Your task to perform on an android device: turn smart compose on in the gmail app Image 0: 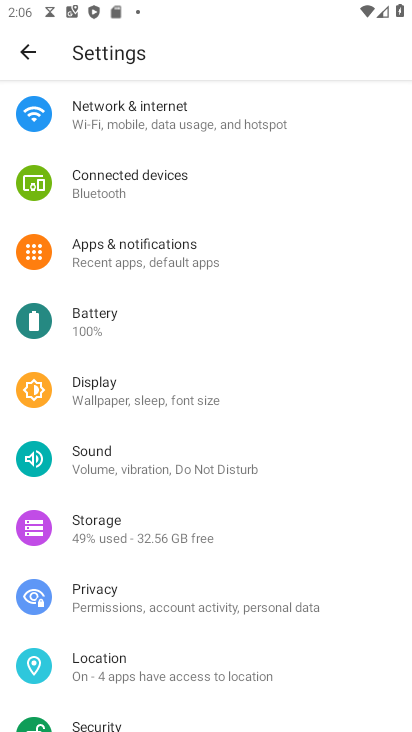
Step 0: press home button
Your task to perform on an android device: turn smart compose on in the gmail app Image 1: 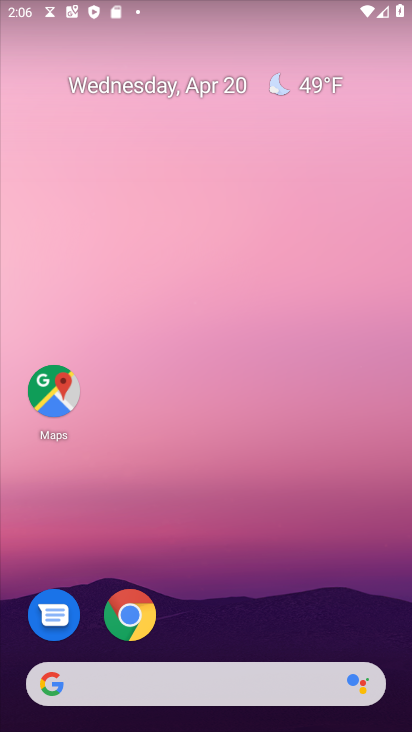
Step 1: drag from (257, 568) to (277, 169)
Your task to perform on an android device: turn smart compose on in the gmail app Image 2: 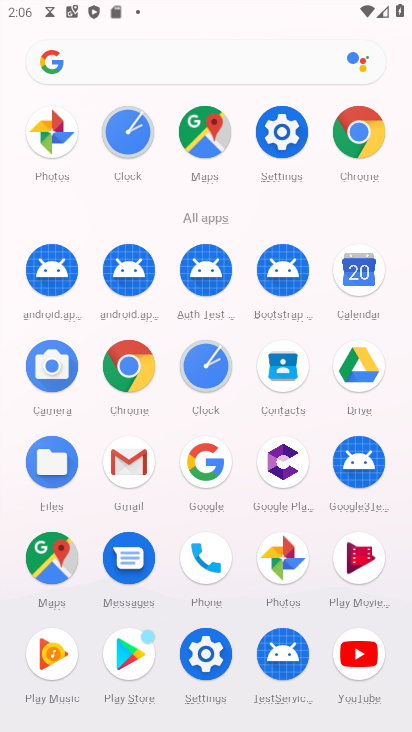
Step 2: click (133, 466)
Your task to perform on an android device: turn smart compose on in the gmail app Image 3: 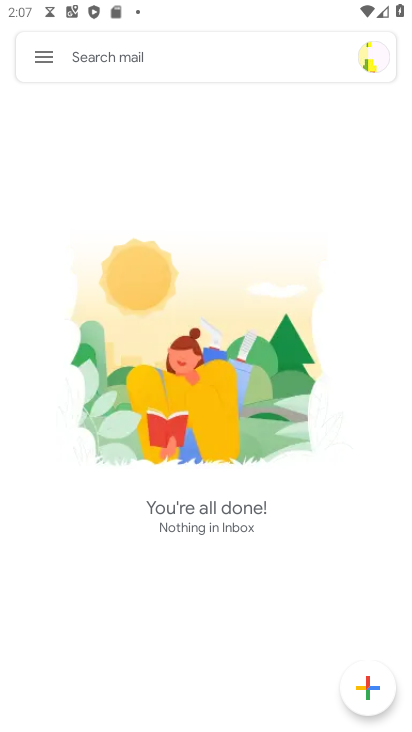
Step 3: click (30, 52)
Your task to perform on an android device: turn smart compose on in the gmail app Image 4: 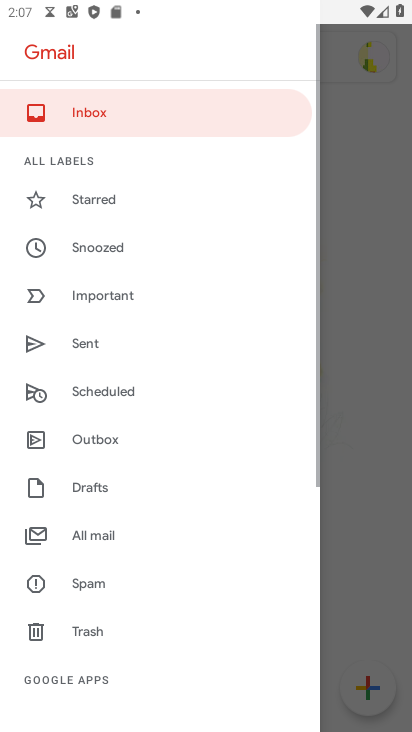
Step 4: drag from (169, 565) to (215, 162)
Your task to perform on an android device: turn smart compose on in the gmail app Image 5: 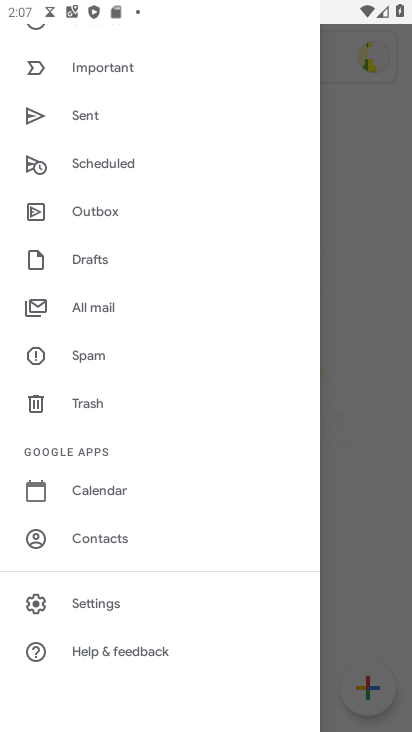
Step 5: click (136, 602)
Your task to perform on an android device: turn smart compose on in the gmail app Image 6: 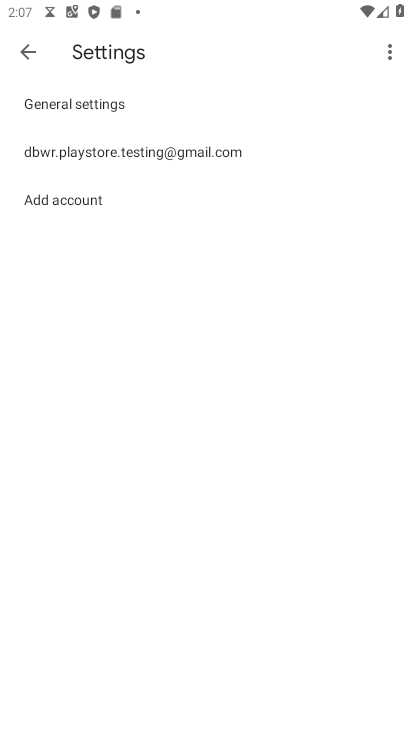
Step 6: click (175, 149)
Your task to perform on an android device: turn smart compose on in the gmail app Image 7: 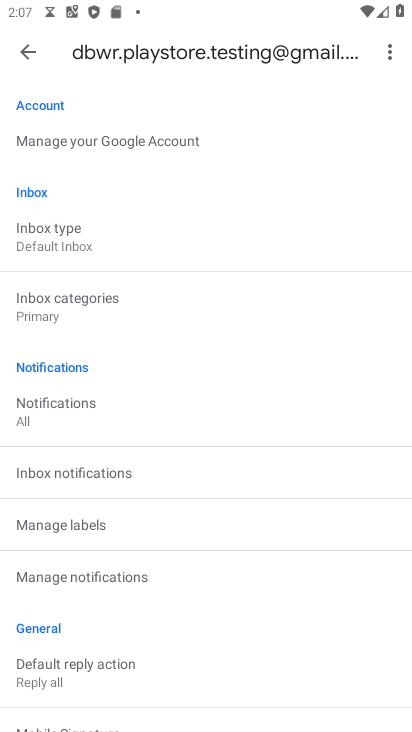
Step 7: task complete